Your task to perform on an android device: install app "Nova Launcher" Image 0: 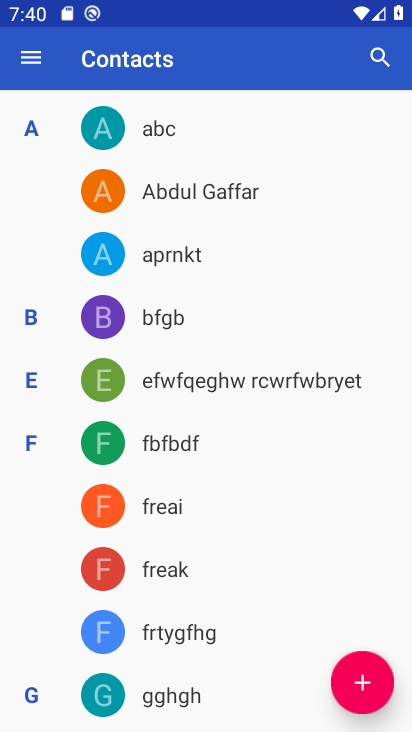
Step 0: press home button
Your task to perform on an android device: install app "Nova Launcher" Image 1: 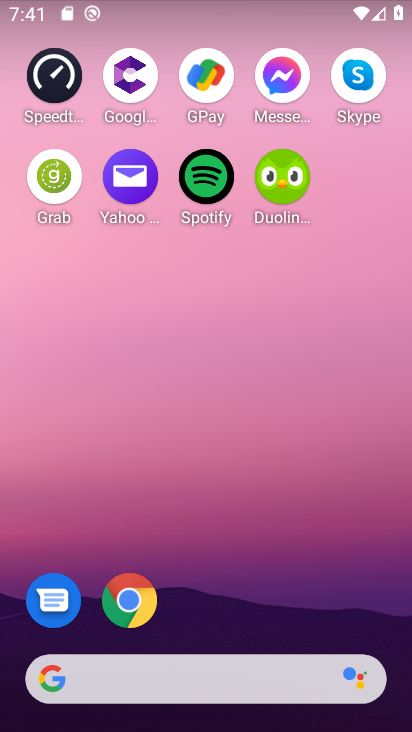
Step 1: drag from (180, 623) to (177, 173)
Your task to perform on an android device: install app "Nova Launcher" Image 2: 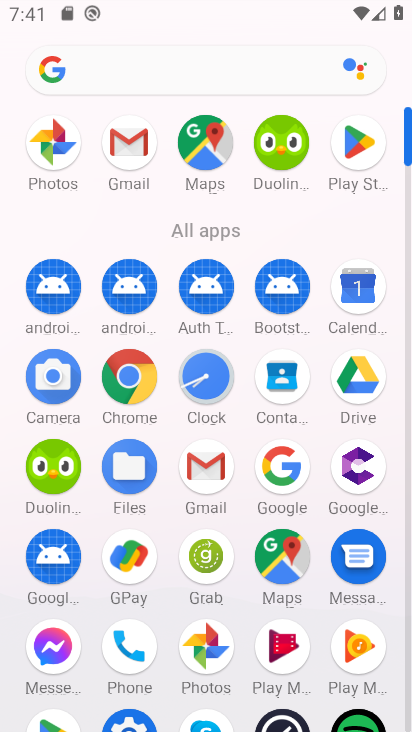
Step 2: click (356, 147)
Your task to perform on an android device: install app "Nova Launcher" Image 3: 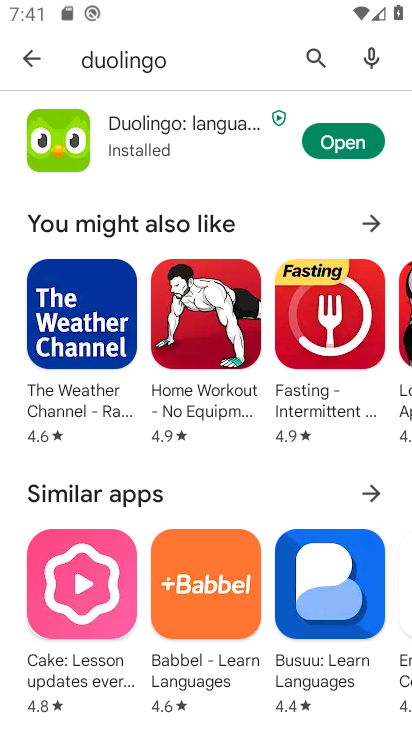
Step 3: click (24, 58)
Your task to perform on an android device: install app "Nova Launcher" Image 4: 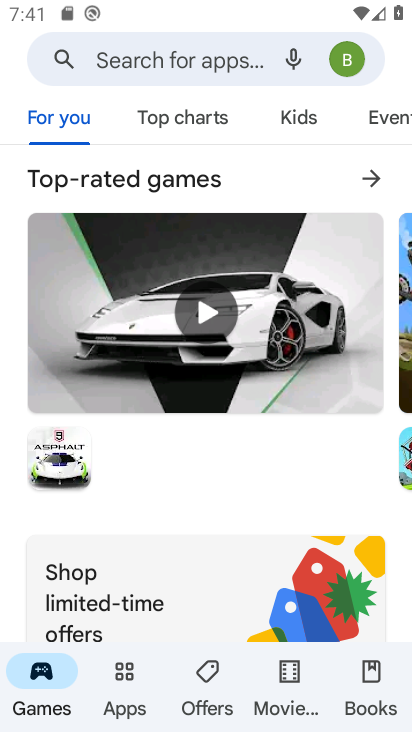
Step 4: click (170, 68)
Your task to perform on an android device: install app "Nova Launcher" Image 5: 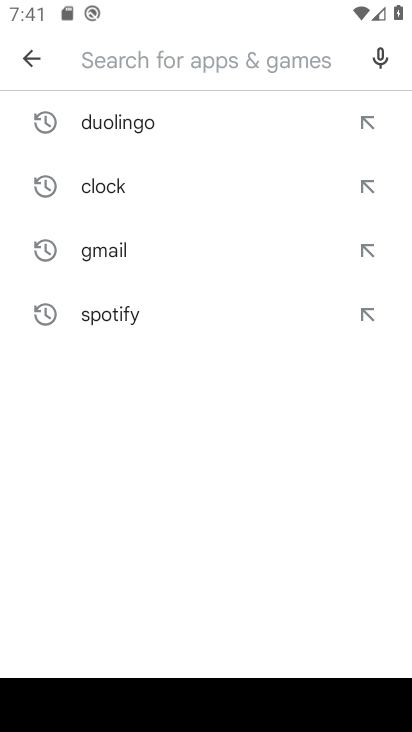
Step 5: type "Nova Launcher"
Your task to perform on an android device: install app "Nova Launcher" Image 6: 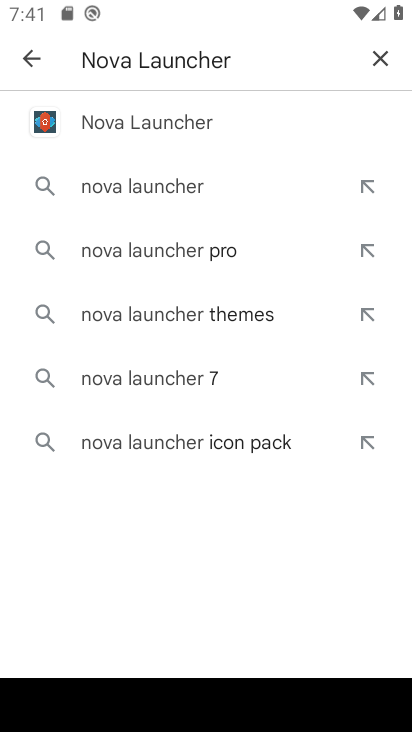
Step 6: click (153, 128)
Your task to perform on an android device: install app "Nova Launcher" Image 7: 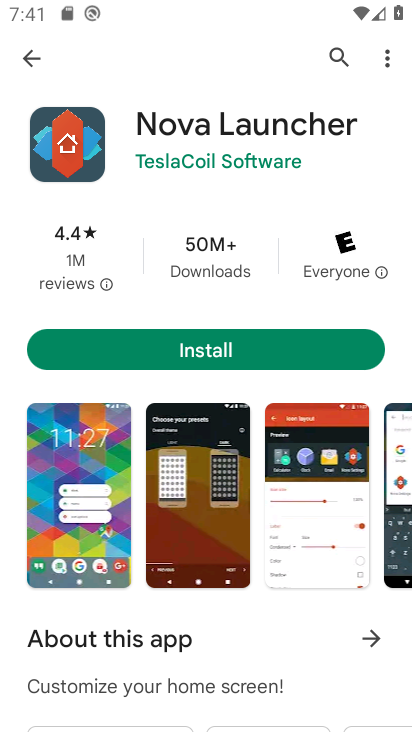
Step 7: click (195, 353)
Your task to perform on an android device: install app "Nova Launcher" Image 8: 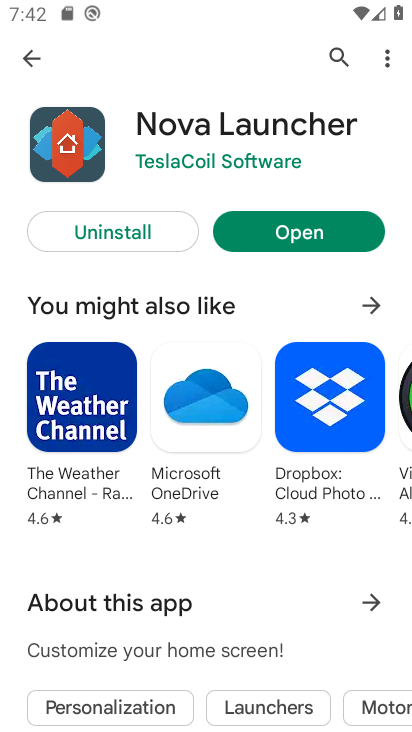
Step 8: click (247, 211)
Your task to perform on an android device: install app "Nova Launcher" Image 9: 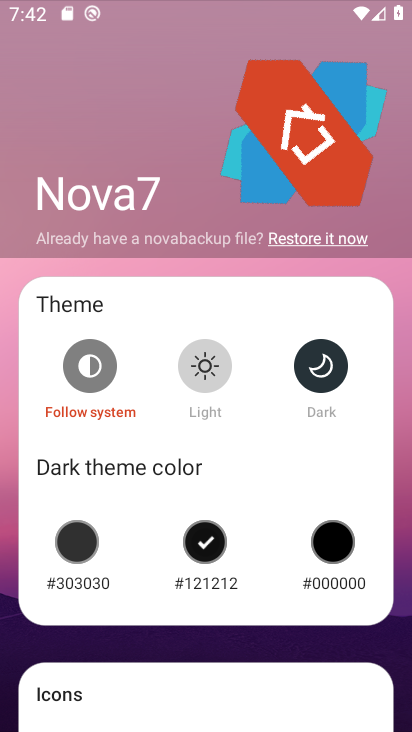
Step 9: task complete